Your task to perform on an android device: open device folders in google photos Image 0: 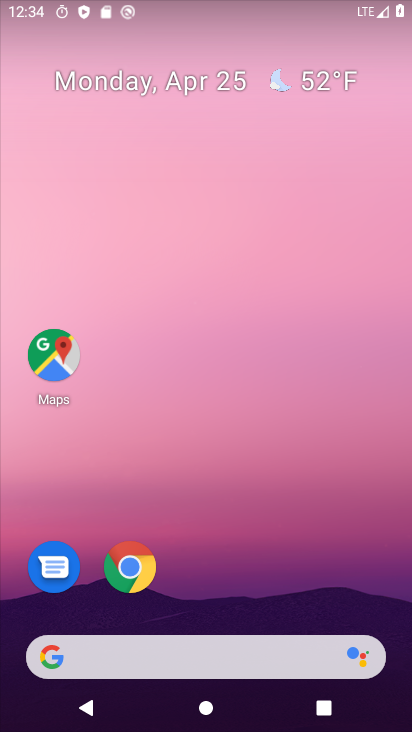
Step 0: drag from (282, 524) to (273, 88)
Your task to perform on an android device: open device folders in google photos Image 1: 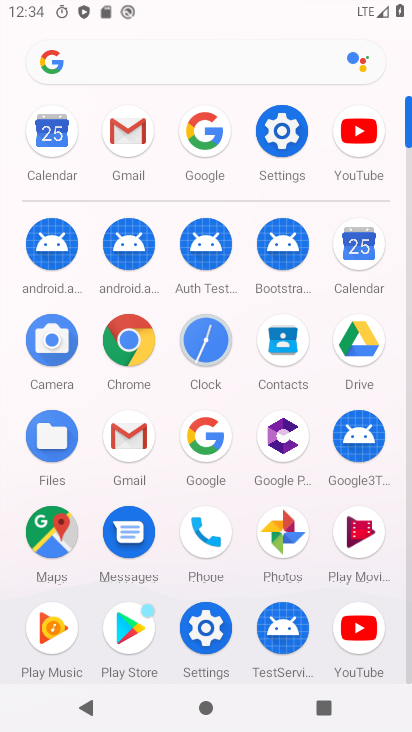
Step 1: click (284, 529)
Your task to perform on an android device: open device folders in google photos Image 2: 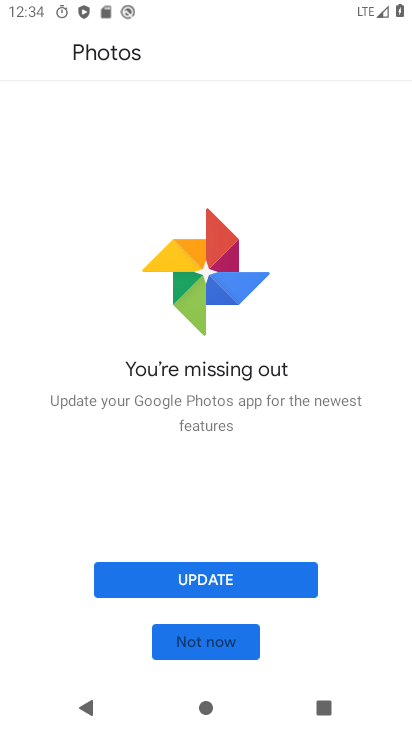
Step 2: click (265, 574)
Your task to perform on an android device: open device folders in google photos Image 3: 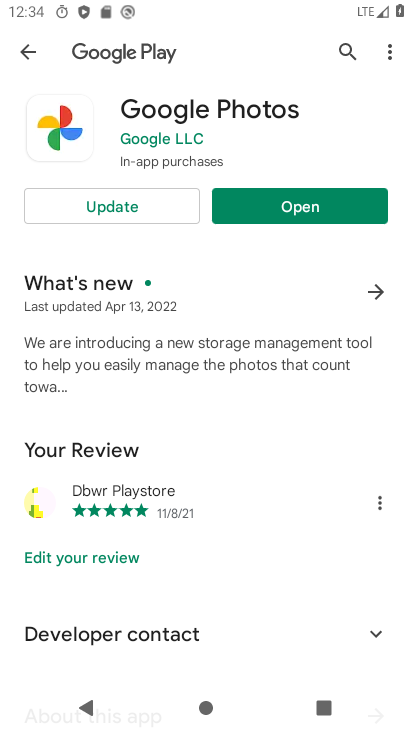
Step 3: click (311, 204)
Your task to perform on an android device: open device folders in google photos Image 4: 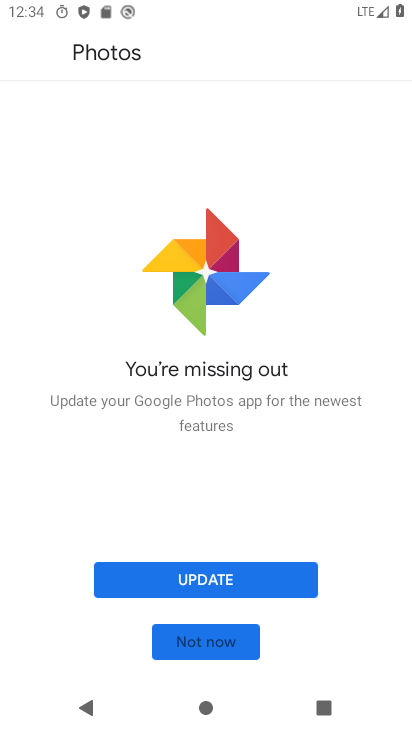
Step 4: click (278, 587)
Your task to perform on an android device: open device folders in google photos Image 5: 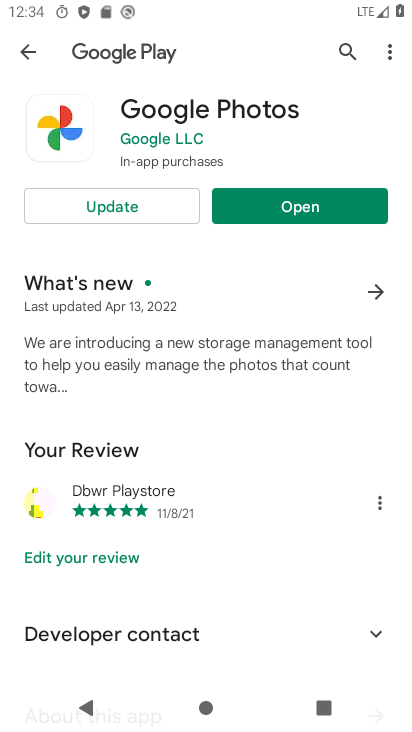
Step 5: click (178, 207)
Your task to perform on an android device: open device folders in google photos Image 6: 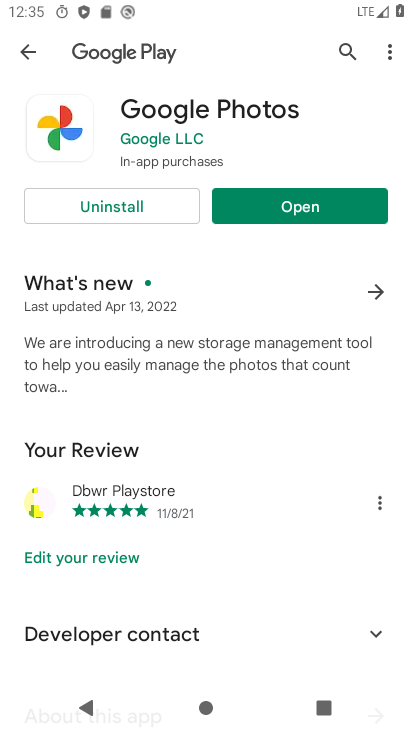
Step 6: click (376, 197)
Your task to perform on an android device: open device folders in google photos Image 7: 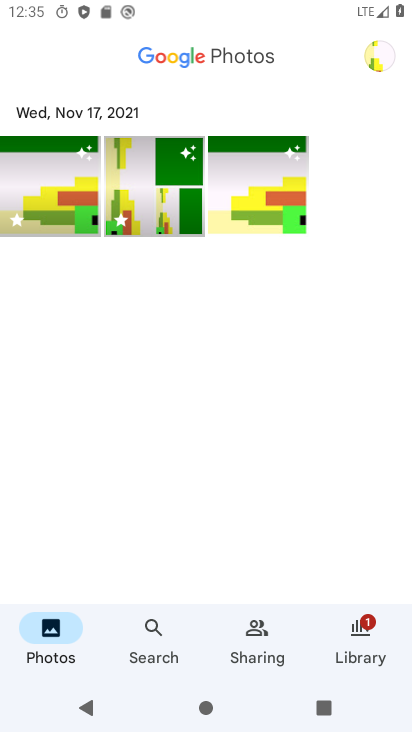
Step 7: click (382, 55)
Your task to perform on an android device: open device folders in google photos Image 8: 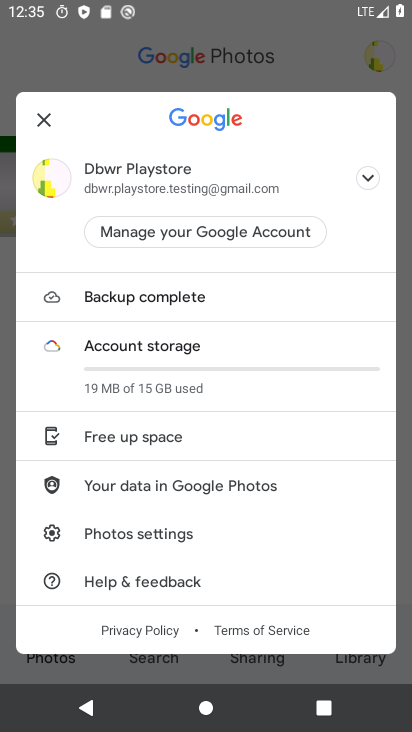
Step 8: drag from (234, 528) to (274, 265)
Your task to perform on an android device: open device folders in google photos Image 9: 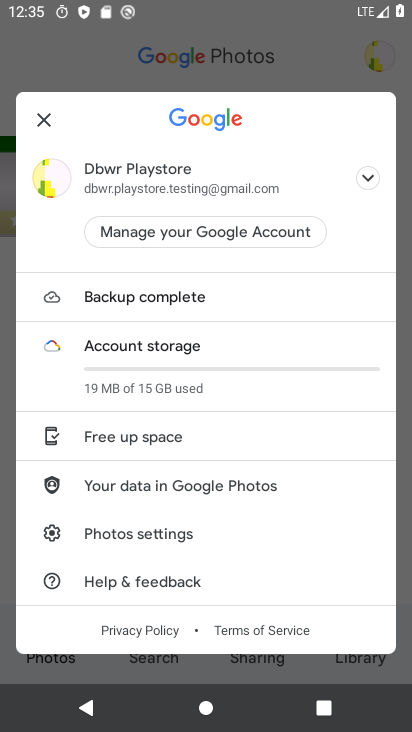
Step 9: click (42, 112)
Your task to perform on an android device: open device folders in google photos Image 10: 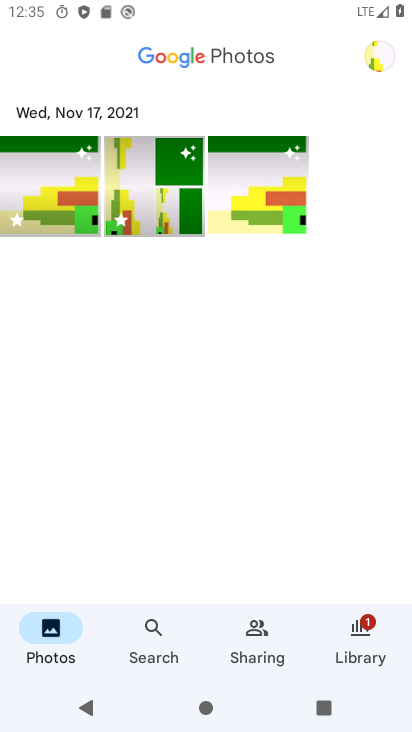
Step 10: click (161, 629)
Your task to perform on an android device: open device folders in google photos Image 11: 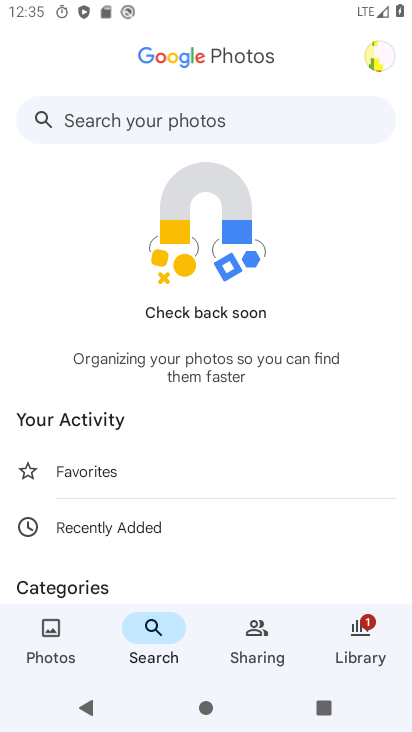
Step 11: click (251, 97)
Your task to perform on an android device: open device folders in google photos Image 12: 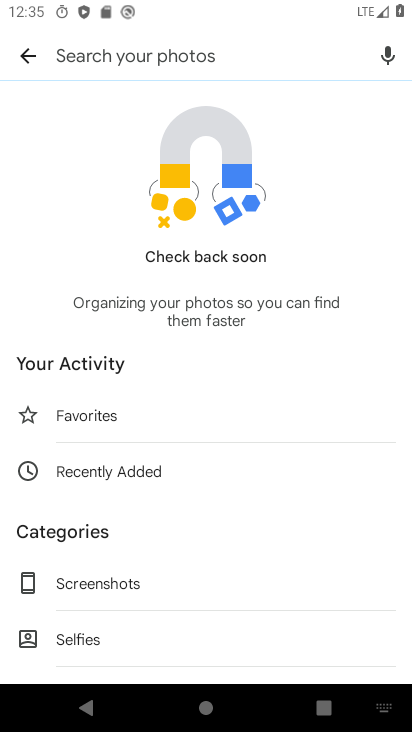
Step 12: click (252, 121)
Your task to perform on an android device: open device folders in google photos Image 13: 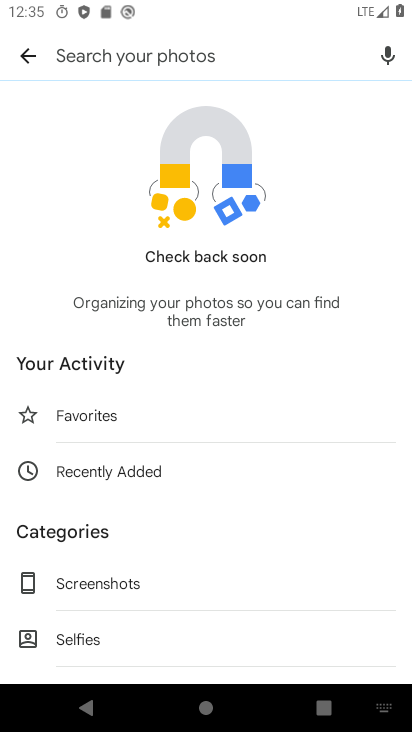
Step 13: type "device folder"
Your task to perform on an android device: open device folders in google photos Image 14: 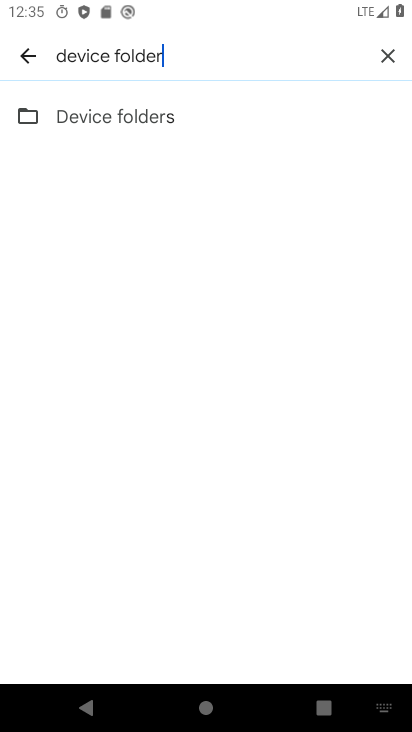
Step 14: click (159, 108)
Your task to perform on an android device: open device folders in google photos Image 15: 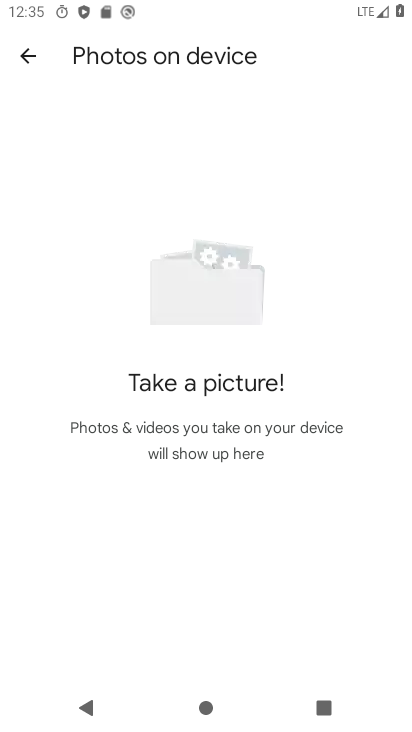
Step 15: task complete